Your task to perform on an android device: Open internet settings Image 0: 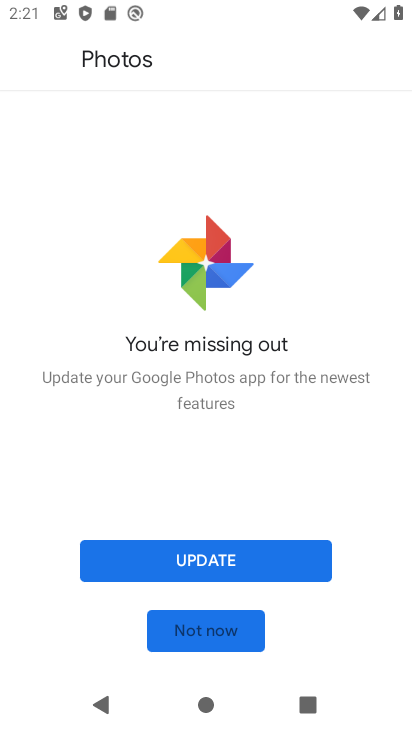
Step 0: press home button
Your task to perform on an android device: Open internet settings Image 1: 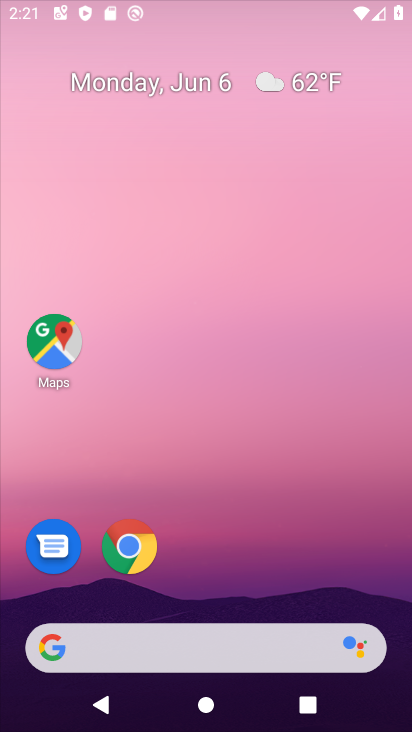
Step 1: drag from (312, 618) to (258, 234)
Your task to perform on an android device: Open internet settings Image 2: 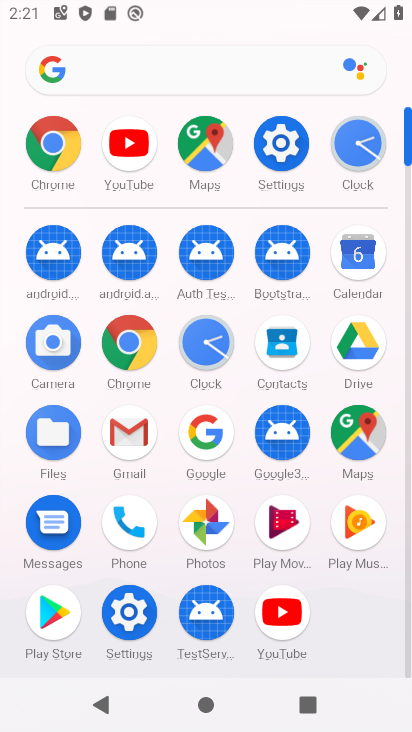
Step 2: click (273, 154)
Your task to perform on an android device: Open internet settings Image 3: 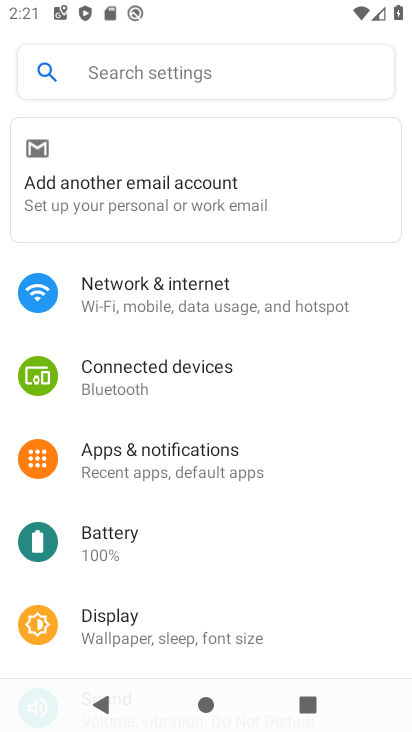
Step 3: click (148, 296)
Your task to perform on an android device: Open internet settings Image 4: 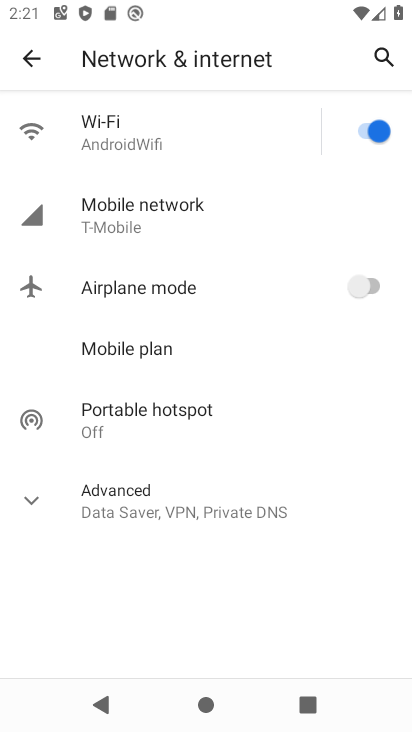
Step 4: click (149, 527)
Your task to perform on an android device: Open internet settings Image 5: 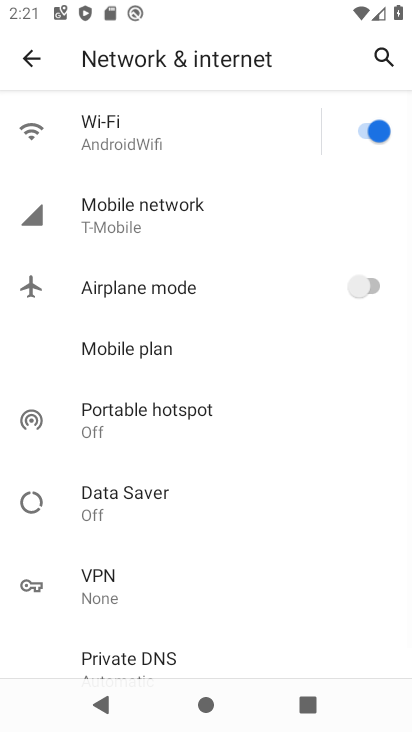
Step 5: task complete